Your task to perform on an android device: allow cookies in the chrome app Image 0: 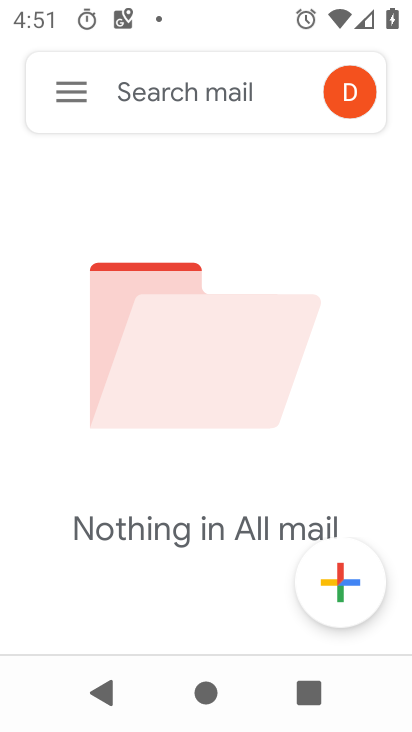
Step 0: press home button
Your task to perform on an android device: allow cookies in the chrome app Image 1: 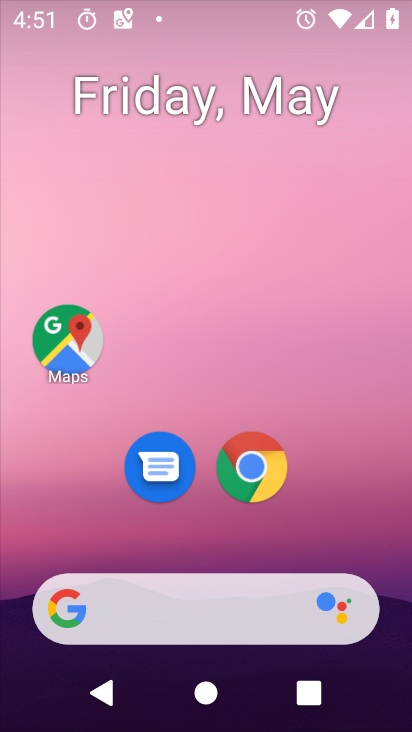
Step 1: drag from (353, 555) to (283, 78)
Your task to perform on an android device: allow cookies in the chrome app Image 2: 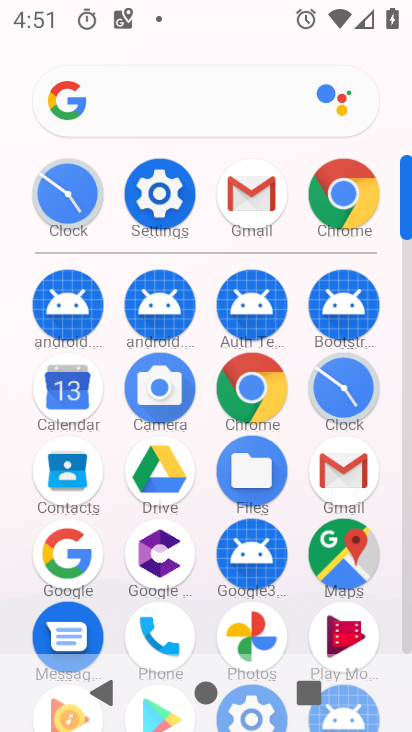
Step 2: click (257, 397)
Your task to perform on an android device: allow cookies in the chrome app Image 3: 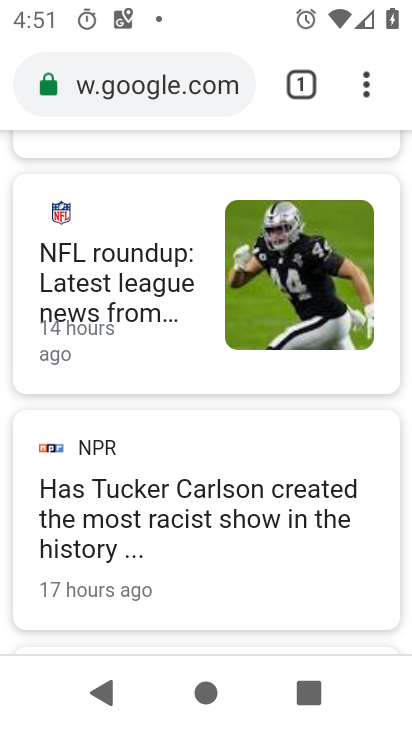
Step 3: click (365, 89)
Your task to perform on an android device: allow cookies in the chrome app Image 4: 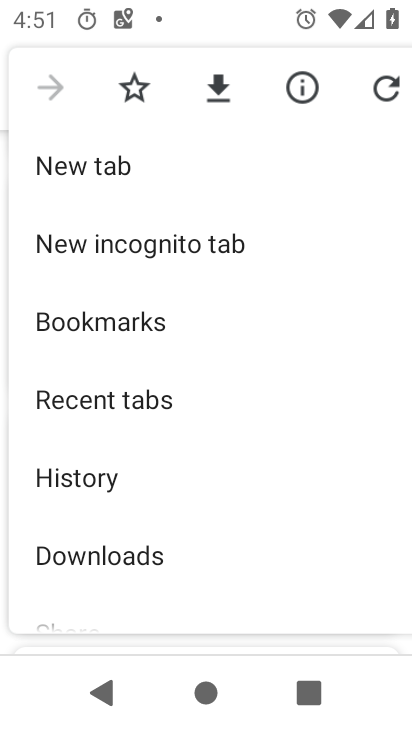
Step 4: drag from (251, 544) to (197, 124)
Your task to perform on an android device: allow cookies in the chrome app Image 5: 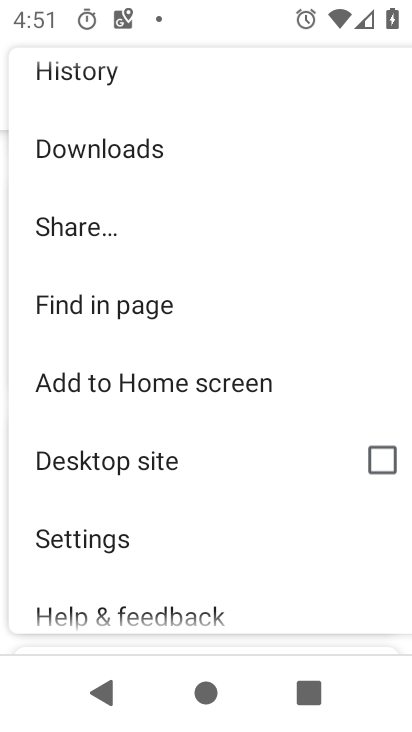
Step 5: drag from (208, 514) to (266, 117)
Your task to perform on an android device: allow cookies in the chrome app Image 6: 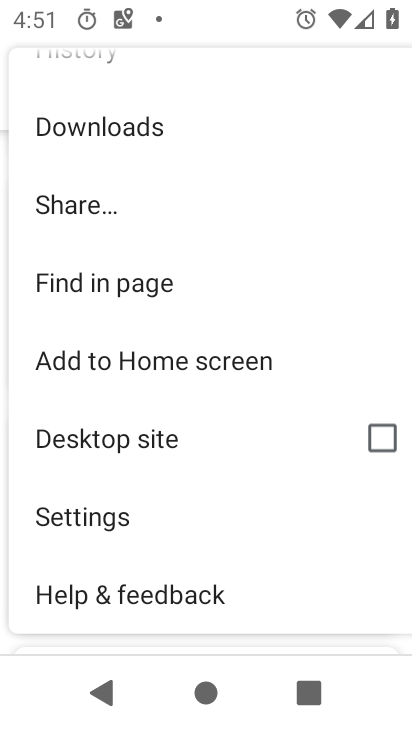
Step 6: click (100, 520)
Your task to perform on an android device: allow cookies in the chrome app Image 7: 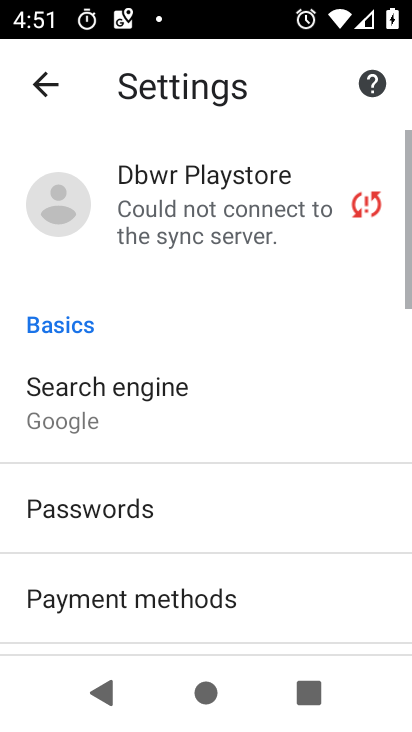
Step 7: drag from (221, 567) to (187, 124)
Your task to perform on an android device: allow cookies in the chrome app Image 8: 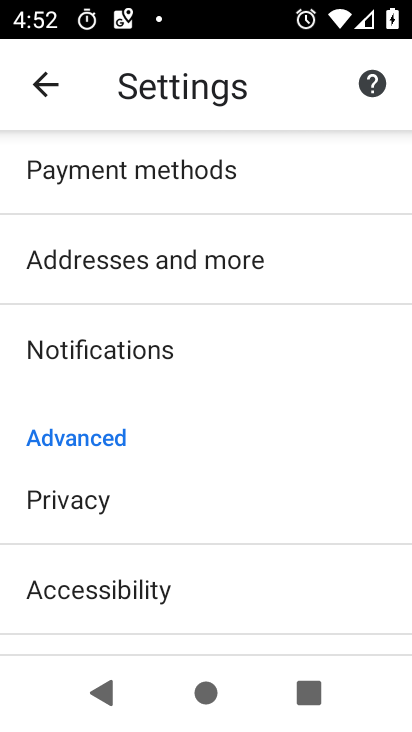
Step 8: drag from (137, 523) to (197, 240)
Your task to perform on an android device: allow cookies in the chrome app Image 9: 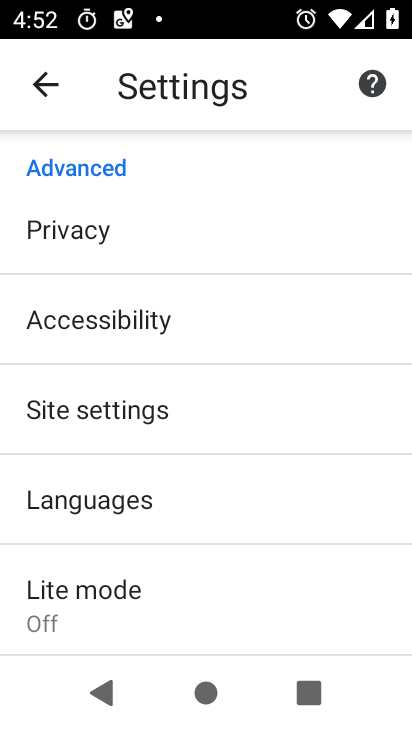
Step 9: click (99, 412)
Your task to perform on an android device: allow cookies in the chrome app Image 10: 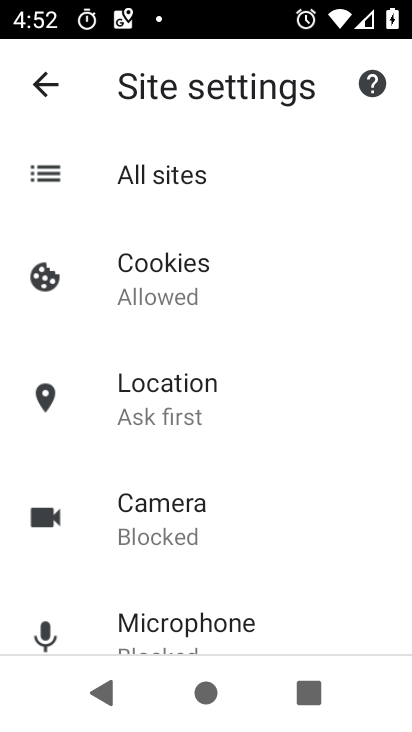
Step 10: click (160, 281)
Your task to perform on an android device: allow cookies in the chrome app Image 11: 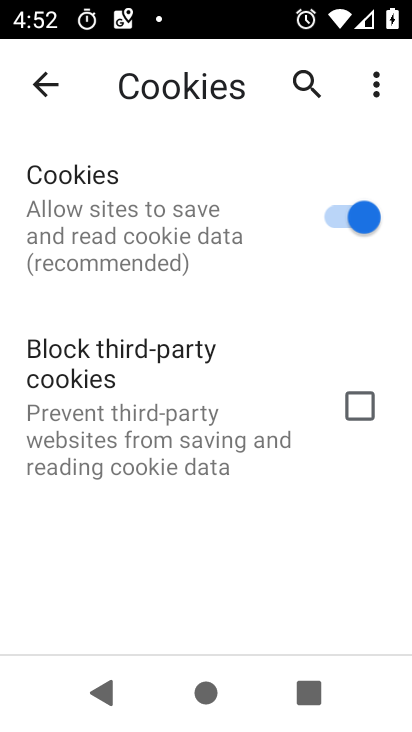
Step 11: task complete